Your task to perform on an android device: toggle improve location accuracy Image 0: 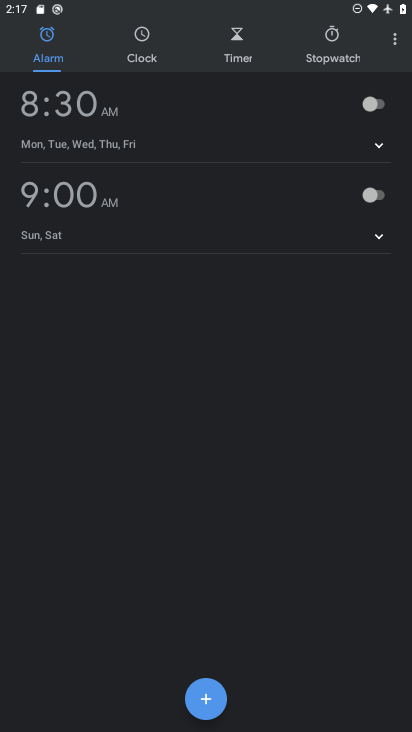
Step 0: press home button
Your task to perform on an android device: toggle improve location accuracy Image 1: 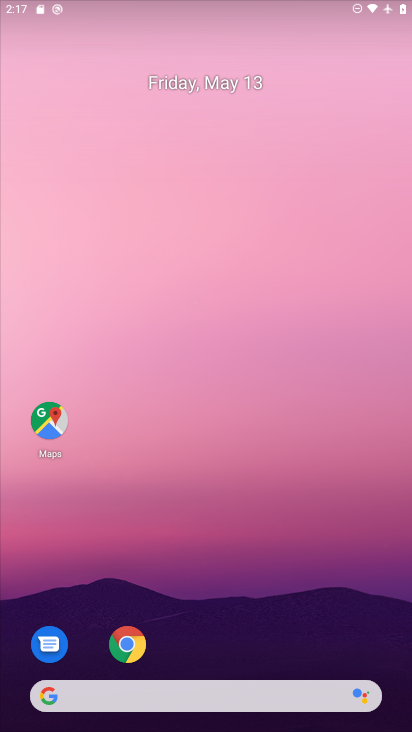
Step 1: drag from (309, 546) to (232, 52)
Your task to perform on an android device: toggle improve location accuracy Image 2: 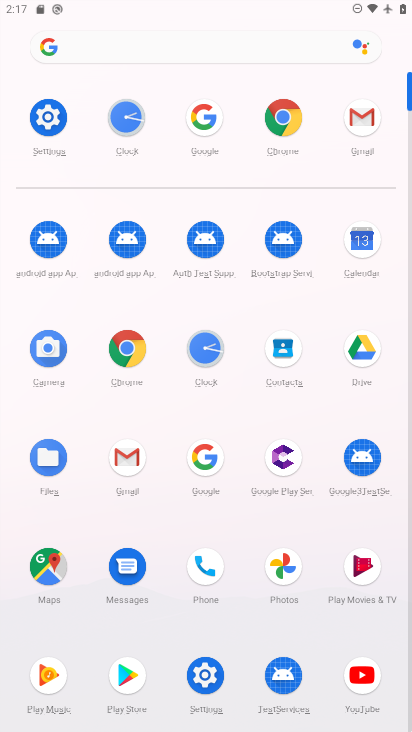
Step 2: click (203, 691)
Your task to perform on an android device: toggle improve location accuracy Image 3: 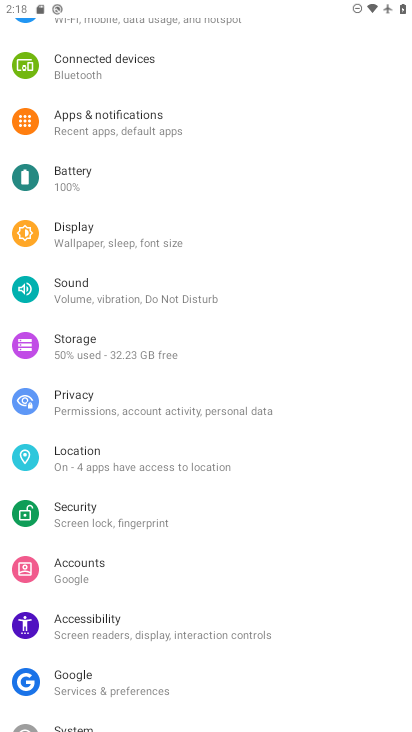
Step 3: click (101, 471)
Your task to perform on an android device: toggle improve location accuracy Image 4: 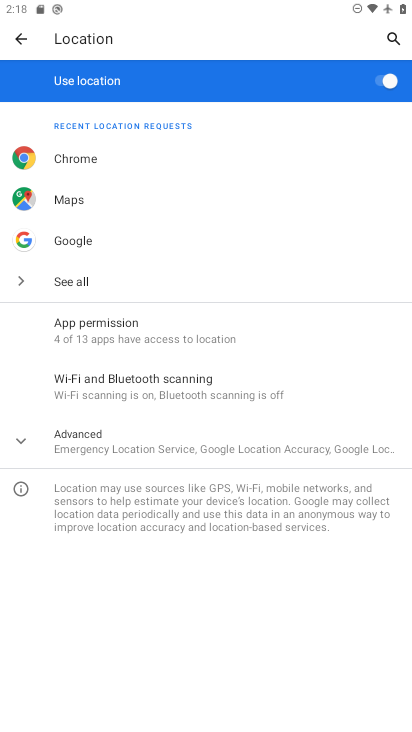
Step 4: click (119, 435)
Your task to perform on an android device: toggle improve location accuracy Image 5: 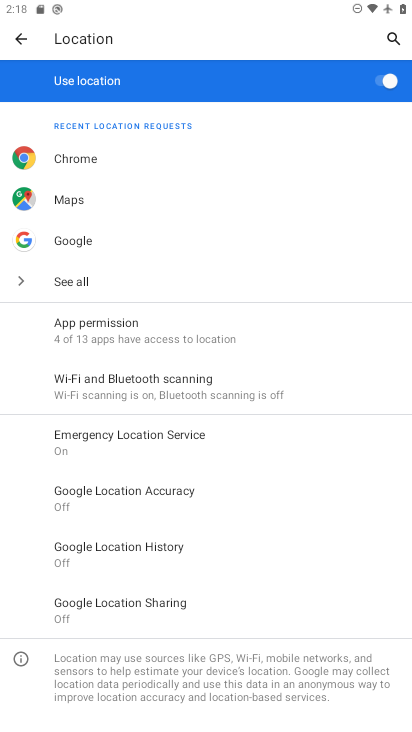
Step 5: click (168, 491)
Your task to perform on an android device: toggle improve location accuracy Image 6: 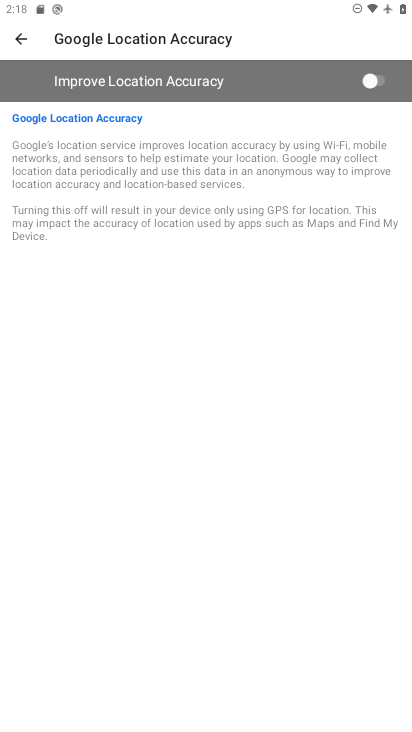
Step 6: click (353, 82)
Your task to perform on an android device: toggle improve location accuracy Image 7: 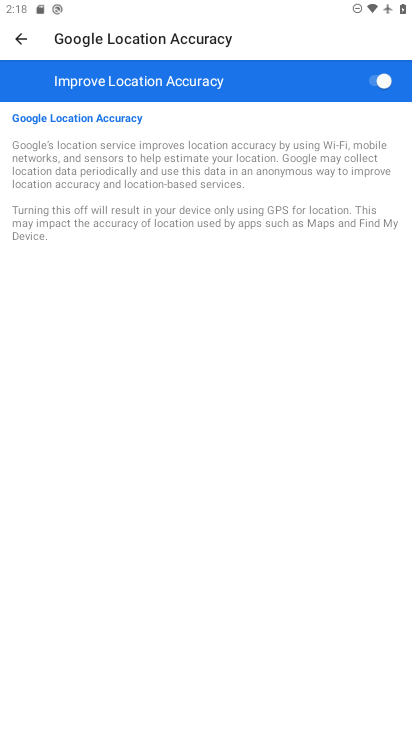
Step 7: task complete